Your task to perform on an android device: Go to Google Image 0: 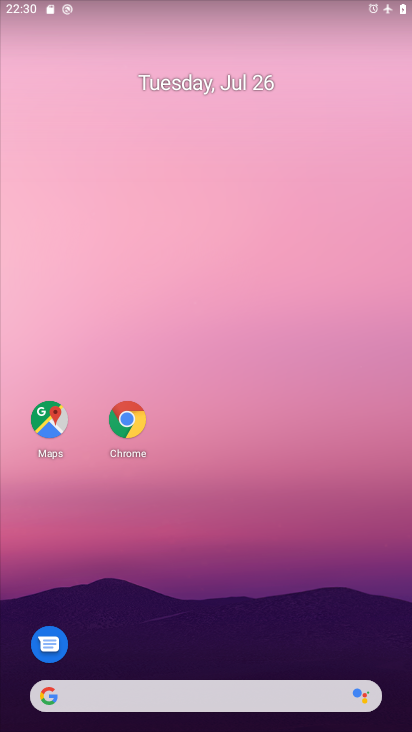
Step 0: drag from (236, 668) to (229, 261)
Your task to perform on an android device: Go to Google Image 1: 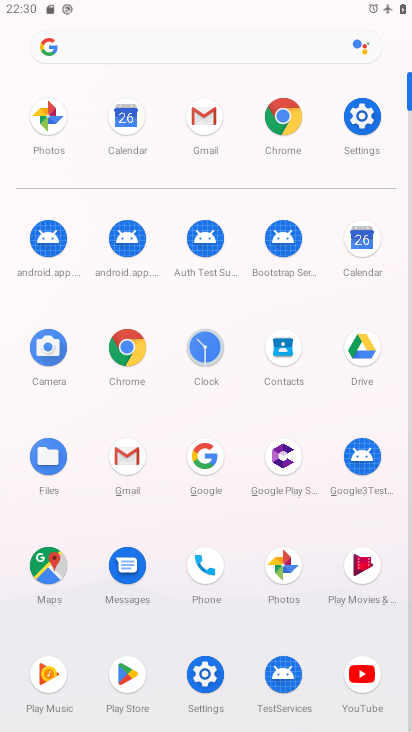
Step 1: click (202, 455)
Your task to perform on an android device: Go to Google Image 2: 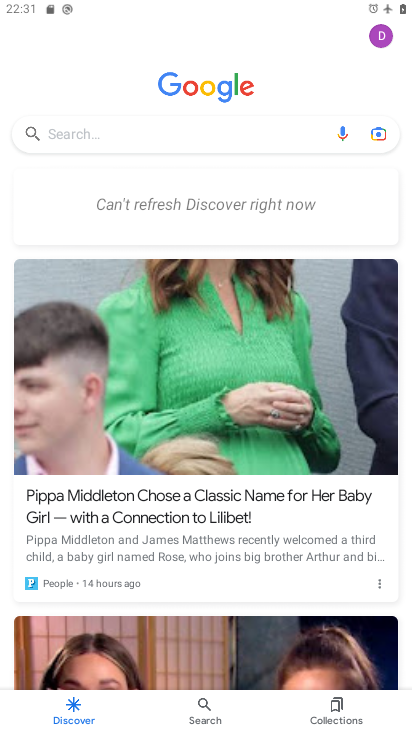
Step 2: task complete